Your task to perform on an android device: refresh tabs in the chrome app Image 0: 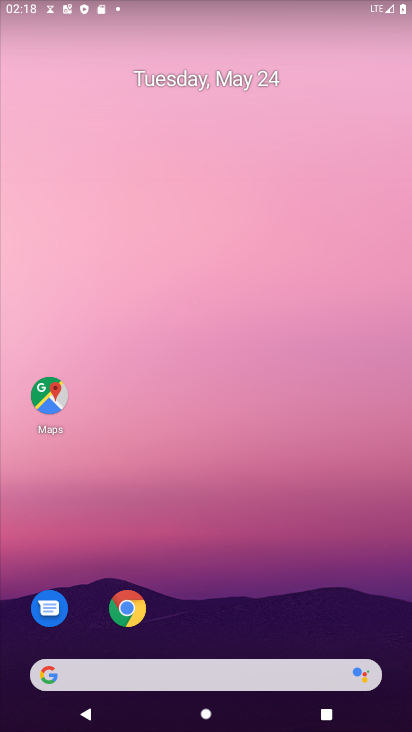
Step 0: click (143, 619)
Your task to perform on an android device: refresh tabs in the chrome app Image 1: 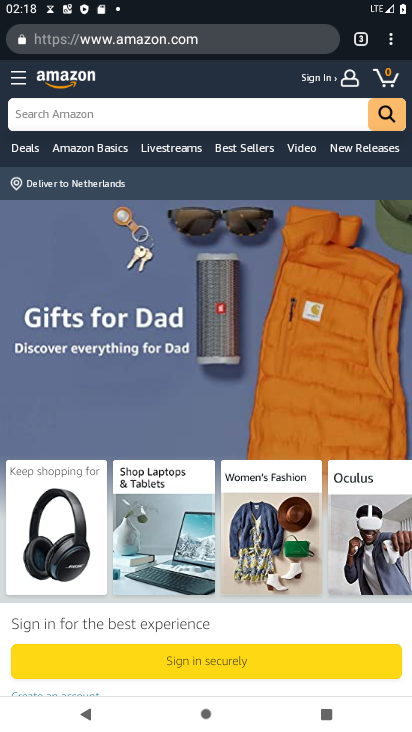
Step 1: click (400, 57)
Your task to perform on an android device: refresh tabs in the chrome app Image 2: 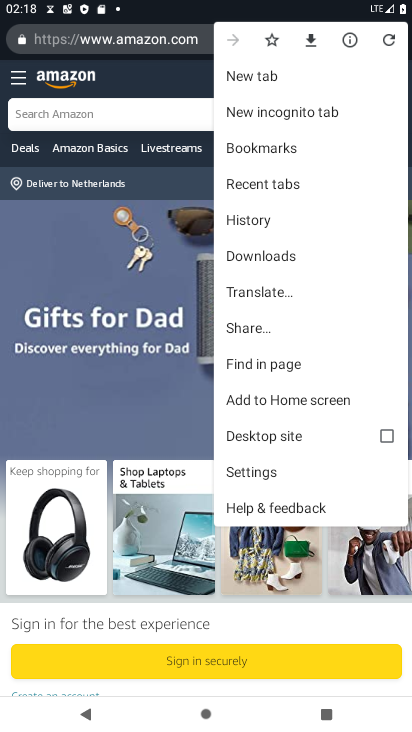
Step 2: click (389, 46)
Your task to perform on an android device: refresh tabs in the chrome app Image 3: 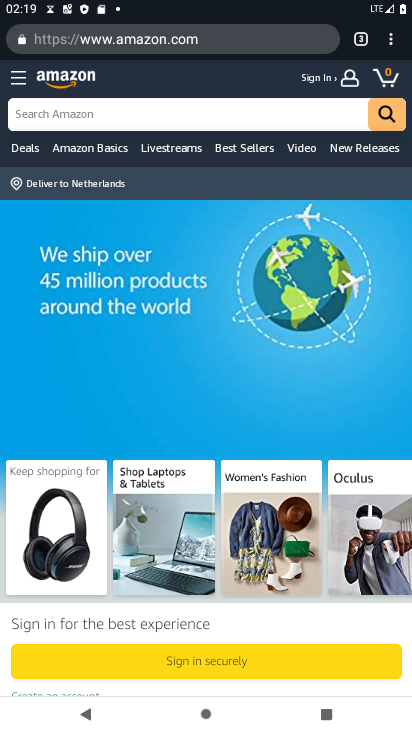
Step 3: task complete